Your task to perform on an android device: turn notification dots off Image 0: 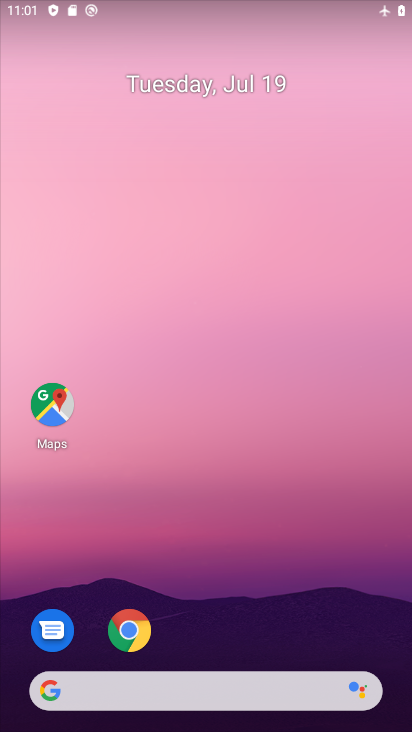
Step 0: drag from (192, 533) to (209, 131)
Your task to perform on an android device: turn notification dots off Image 1: 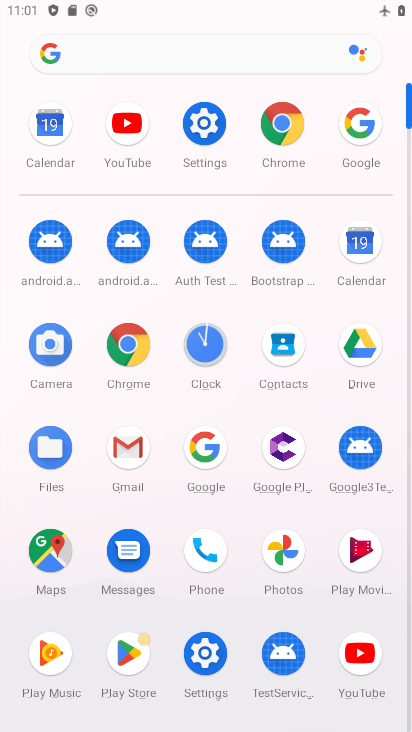
Step 1: click (207, 128)
Your task to perform on an android device: turn notification dots off Image 2: 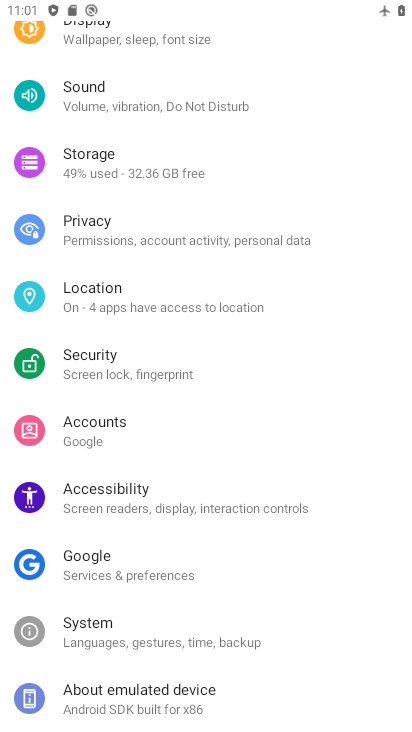
Step 2: drag from (147, 702) to (133, 380)
Your task to perform on an android device: turn notification dots off Image 3: 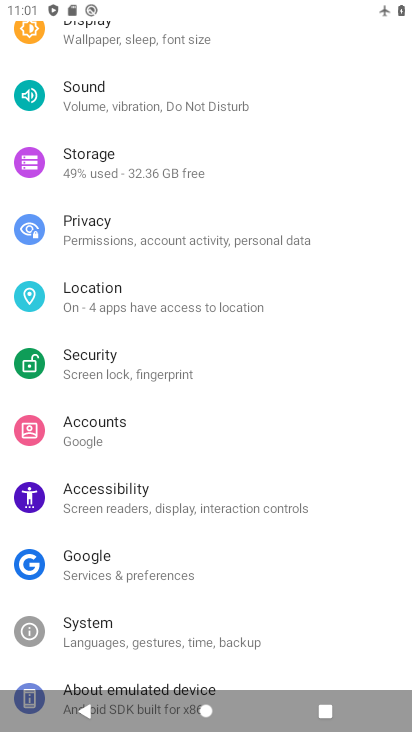
Step 3: drag from (182, 71) to (197, 568)
Your task to perform on an android device: turn notification dots off Image 4: 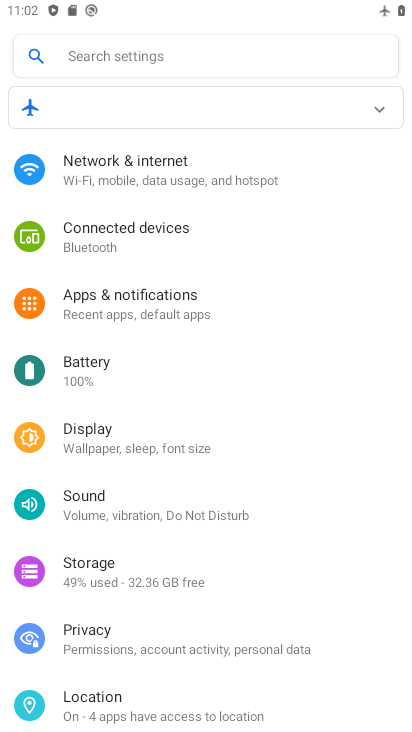
Step 4: click (149, 298)
Your task to perform on an android device: turn notification dots off Image 5: 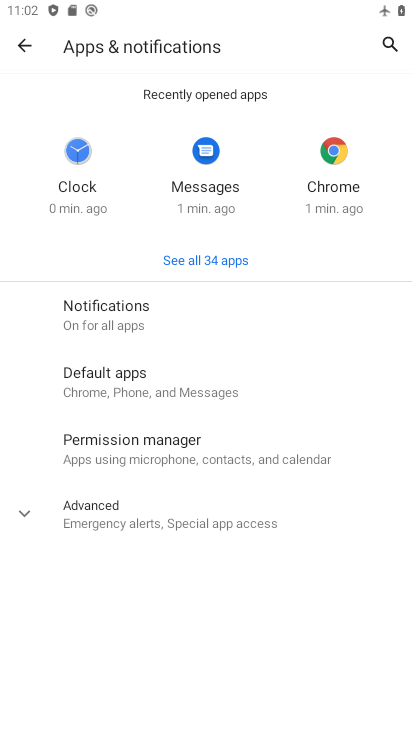
Step 5: click (112, 311)
Your task to perform on an android device: turn notification dots off Image 6: 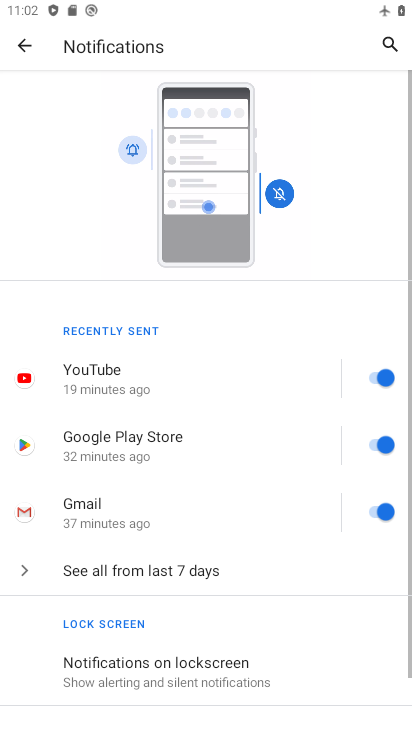
Step 6: drag from (143, 674) to (121, 305)
Your task to perform on an android device: turn notification dots off Image 7: 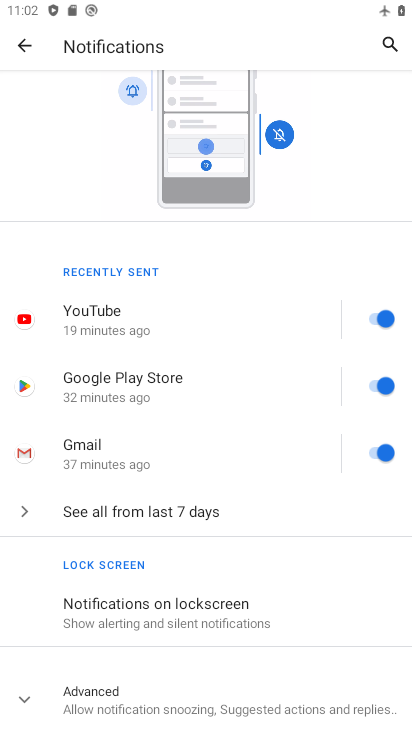
Step 7: click (104, 703)
Your task to perform on an android device: turn notification dots off Image 8: 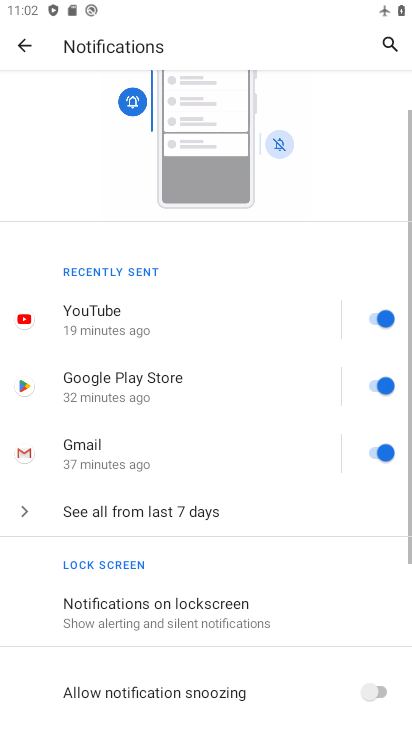
Step 8: drag from (220, 693) to (217, 380)
Your task to perform on an android device: turn notification dots off Image 9: 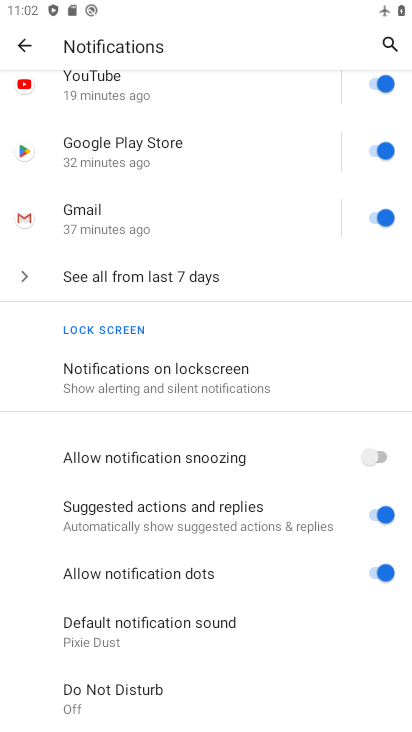
Step 9: click (379, 565)
Your task to perform on an android device: turn notification dots off Image 10: 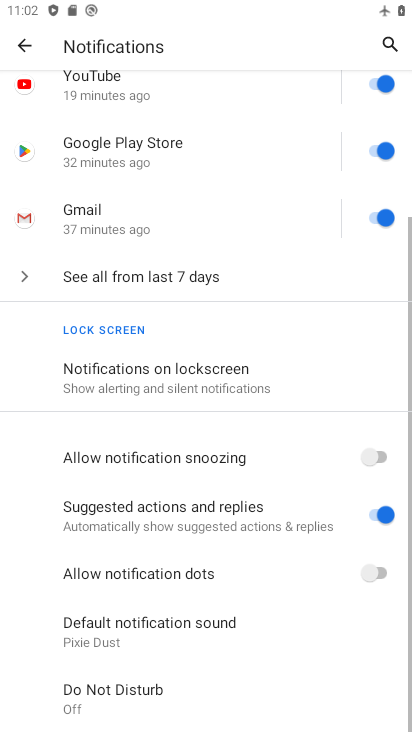
Step 10: task complete